Your task to perform on an android device: install app "Expedia: Hotels, Flights & Car" Image 0: 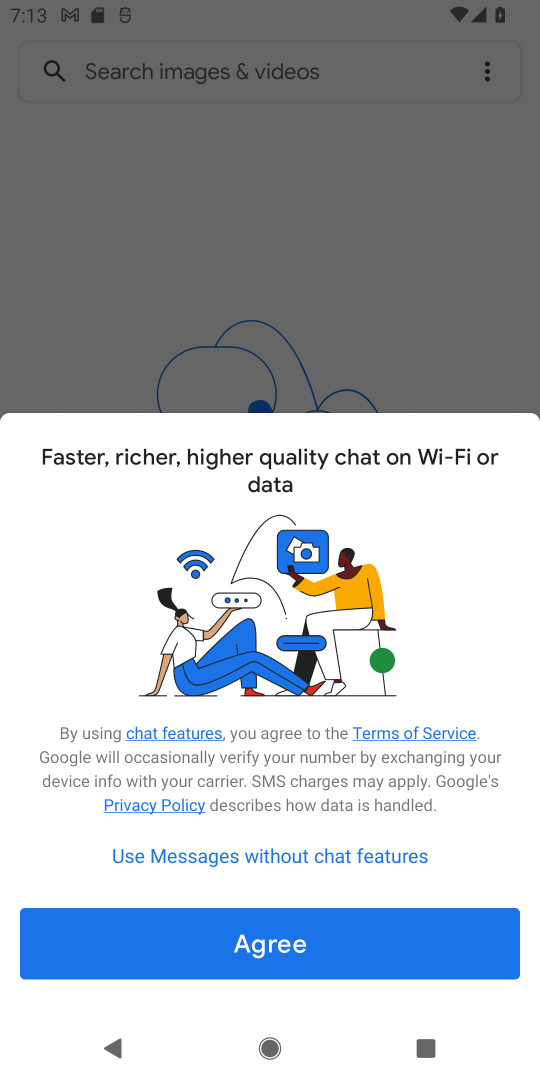
Step 0: press home button
Your task to perform on an android device: install app "Expedia: Hotels, Flights & Car" Image 1: 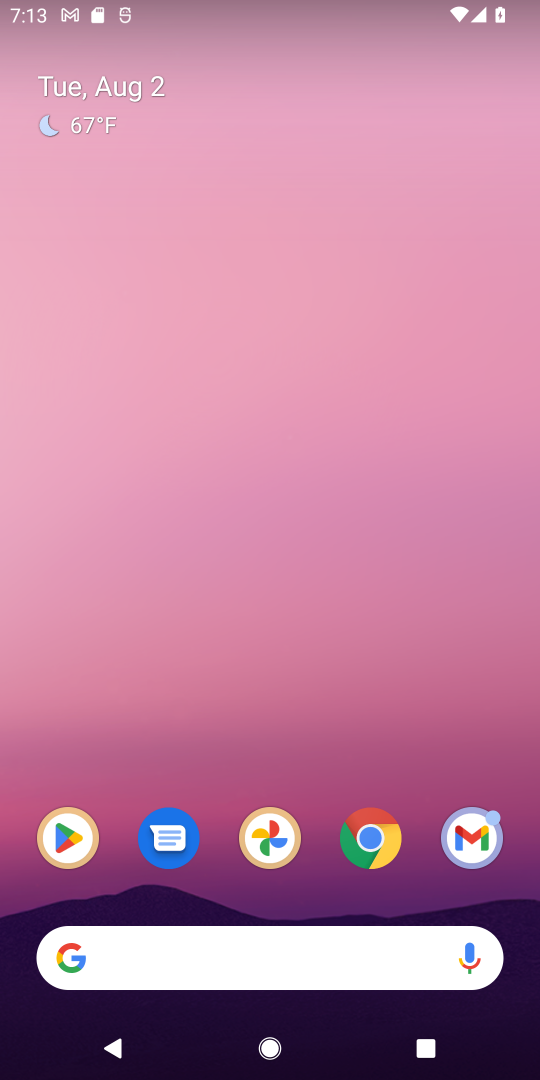
Step 1: click (63, 843)
Your task to perform on an android device: install app "Expedia: Hotels, Flights & Car" Image 2: 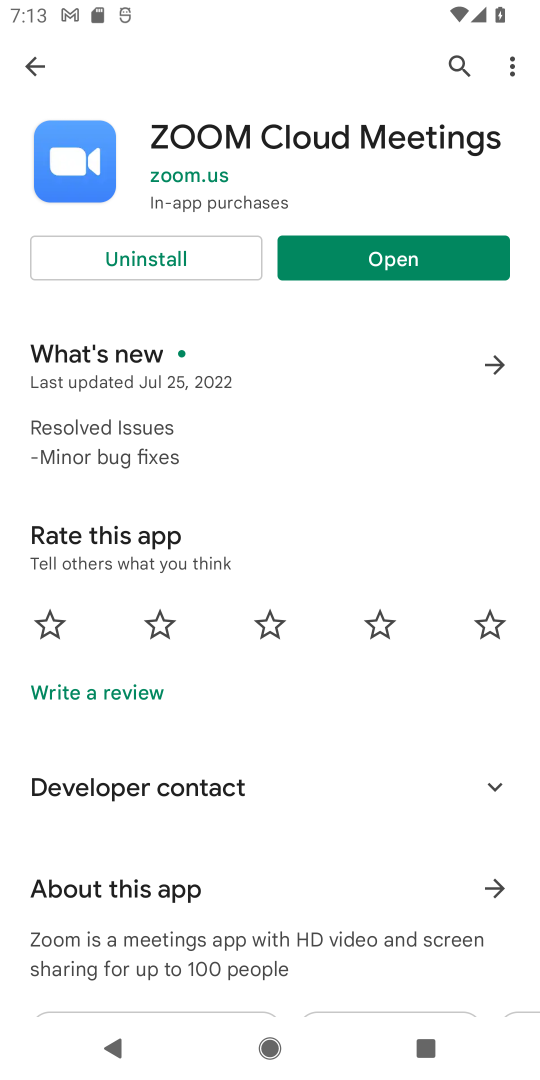
Step 2: click (460, 55)
Your task to perform on an android device: install app "Expedia: Hotels, Flights & Car" Image 3: 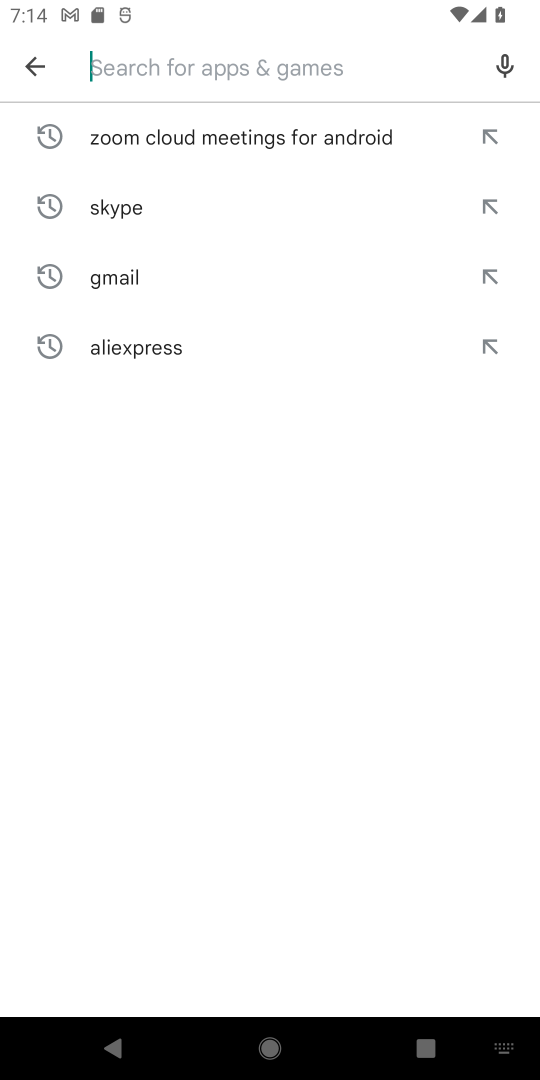
Step 3: type "expedia: hotels, flight & car"
Your task to perform on an android device: install app "Expedia: Hotels, Flights & Car" Image 4: 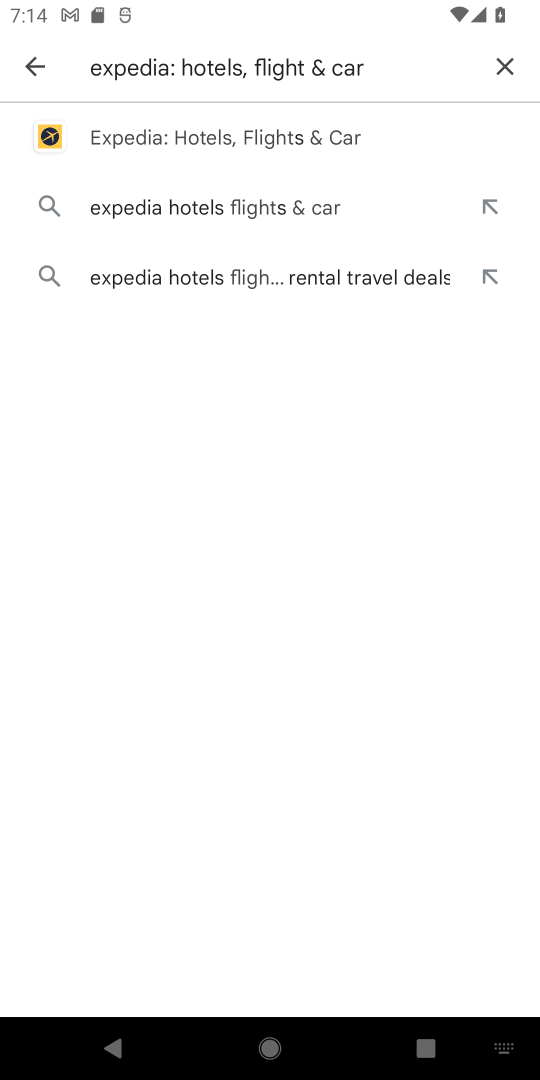
Step 4: click (262, 133)
Your task to perform on an android device: install app "Expedia: Hotels, Flights & Car" Image 5: 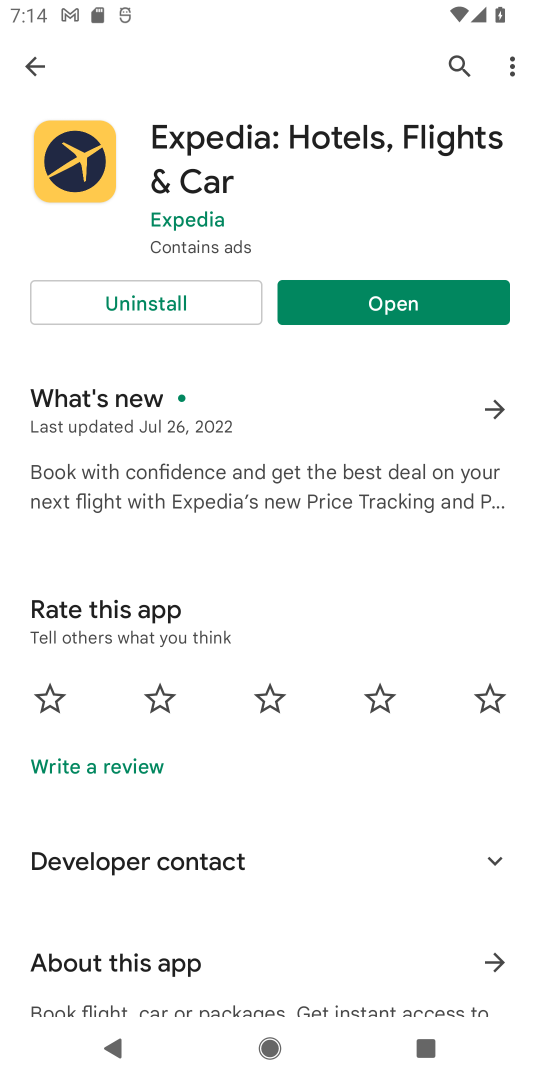
Step 5: task complete